Your task to perform on an android device: add a contact in the contacts app Image 0: 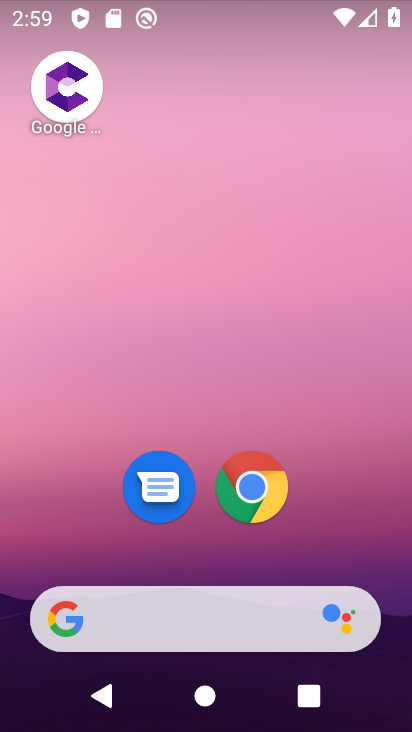
Step 0: drag from (208, 587) to (202, 150)
Your task to perform on an android device: add a contact in the contacts app Image 1: 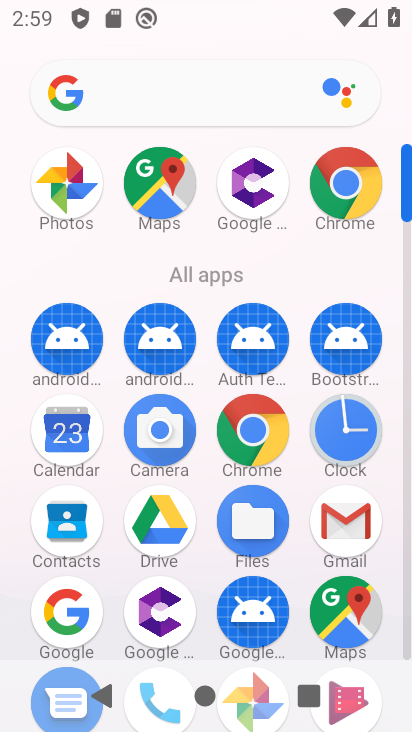
Step 1: click (59, 530)
Your task to perform on an android device: add a contact in the contacts app Image 2: 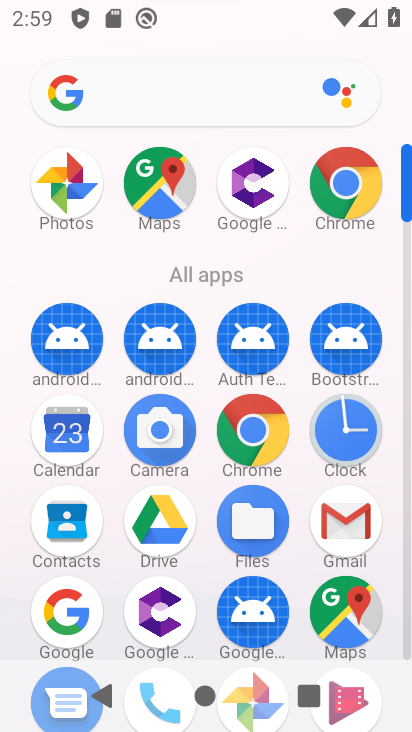
Step 2: click (66, 533)
Your task to perform on an android device: add a contact in the contacts app Image 3: 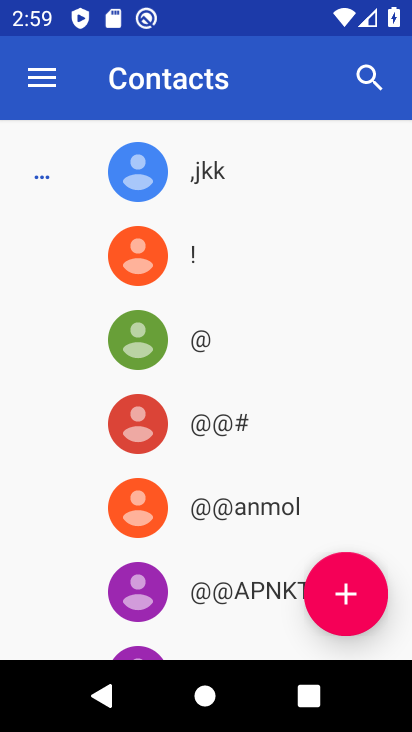
Step 3: click (349, 589)
Your task to perform on an android device: add a contact in the contacts app Image 4: 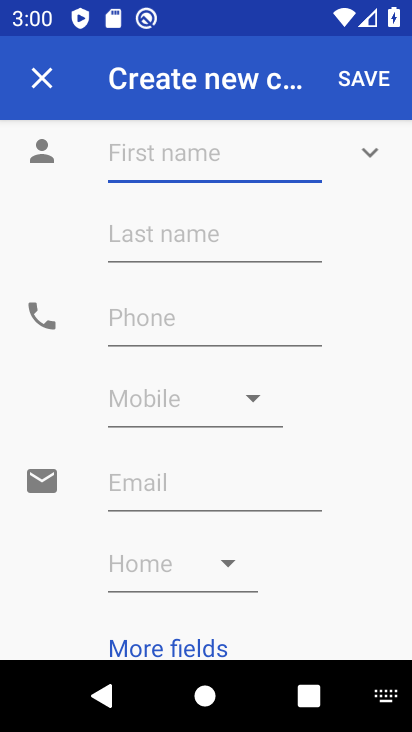
Step 4: type "lipi"
Your task to perform on an android device: add a contact in the contacts app Image 5: 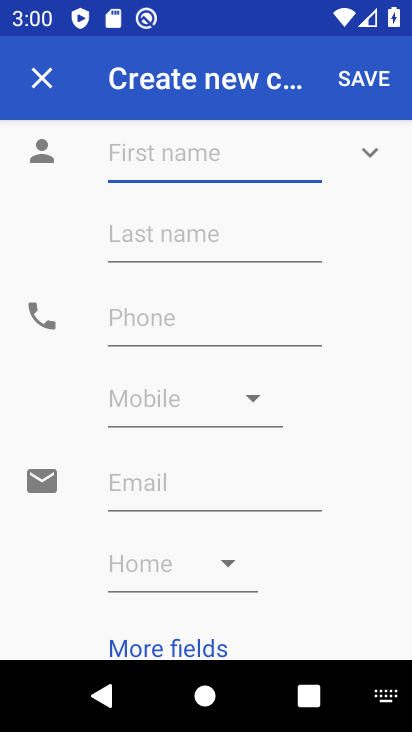
Step 5: click (224, 245)
Your task to perform on an android device: add a contact in the contacts app Image 6: 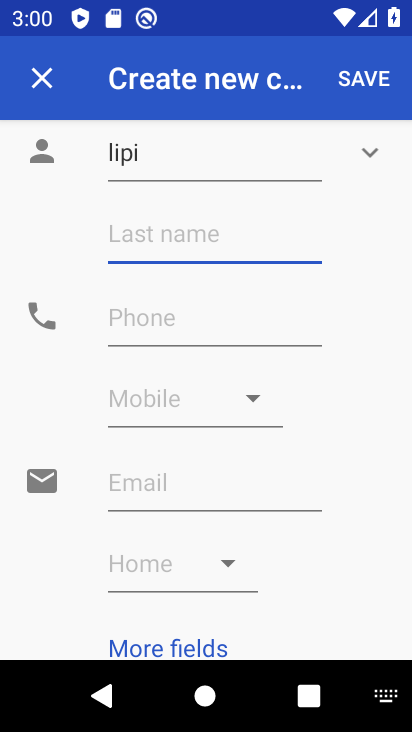
Step 6: type "dev"
Your task to perform on an android device: add a contact in the contacts app Image 7: 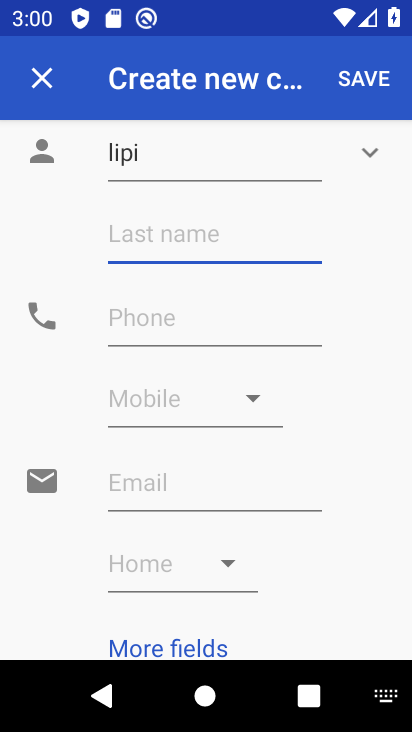
Step 7: click (198, 319)
Your task to perform on an android device: add a contact in the contacts app Image 8: 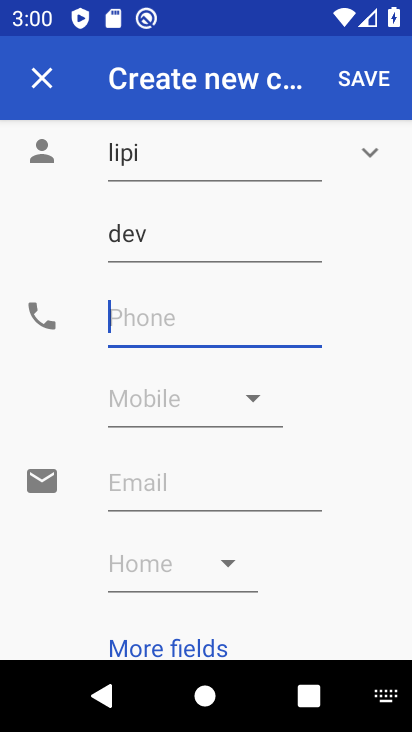
Step 8: type "9807980657"
Your task to perform on an android device: add a contact in the contacts app Image 9: 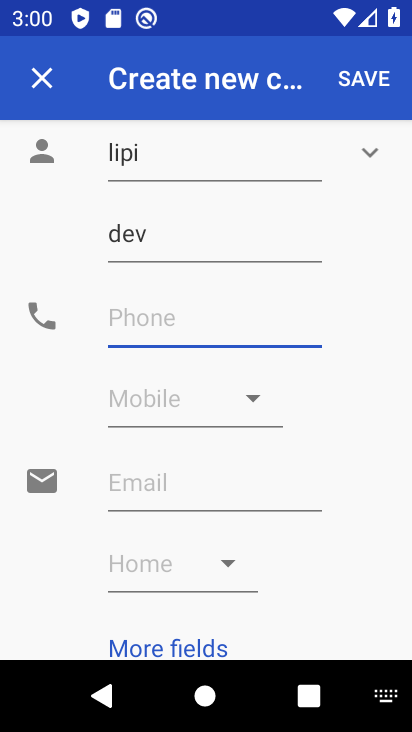
Step 9: click (173, 493)
Your task to perform on an android device: add a contact in the contacts app Image 10: 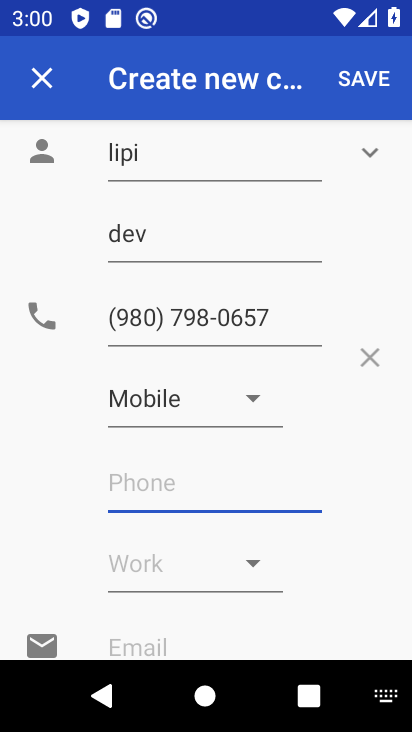
Step 10: click (376, 78)
Your task to perform on an android device: add a contact in the contacts app Image 11: 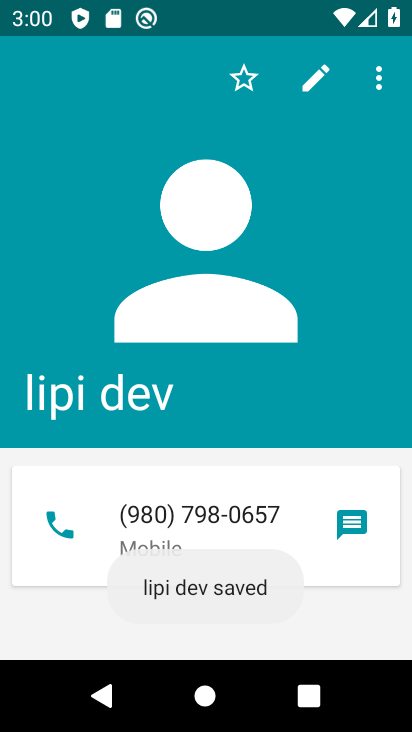
Step 11: task complete